Your task to perform on an android device: Search for Mexican restaurants on Maps Image 0: 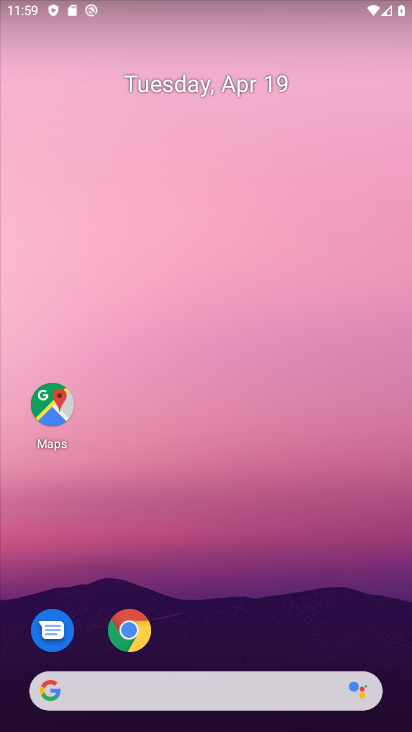
Step 0: drag from (168, 584) to (310, 138)
Your task to perform on an android device: Search for Mexican restaurants on Maps Image 1: 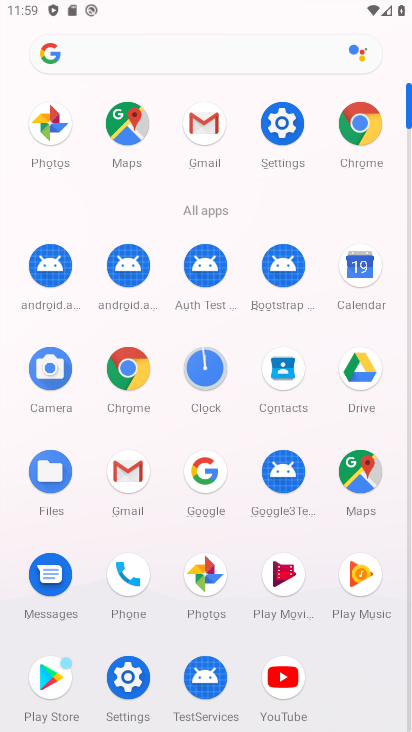
Step 1: click (355, 478)
Your task to perform on an android device: Search for Mexican restaurants on Maps Image 2: 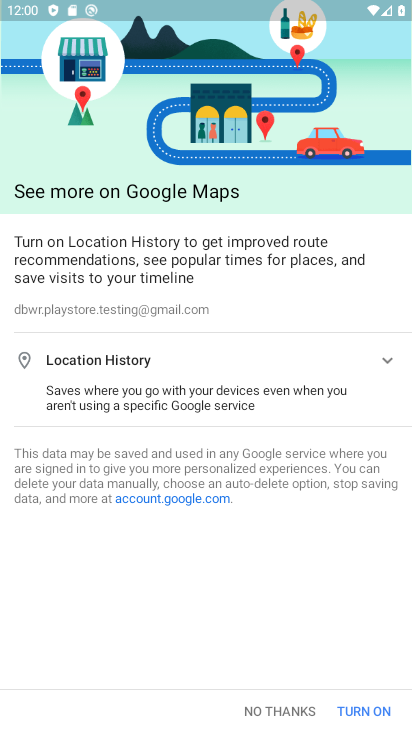
Step 2: click (250, 715)
Your task to perform on an android device: Search for Mexican restaurants on Maps Image 3: 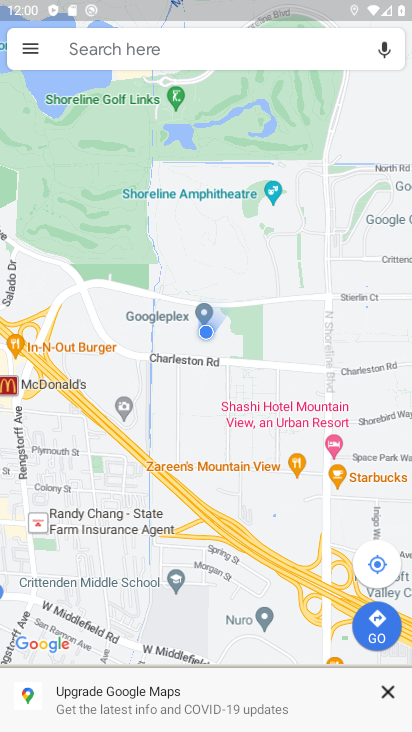
Step 3: click (181, 52)
Your task to perform on an android device: Search for Mexican restaurants on Maps Image 4: 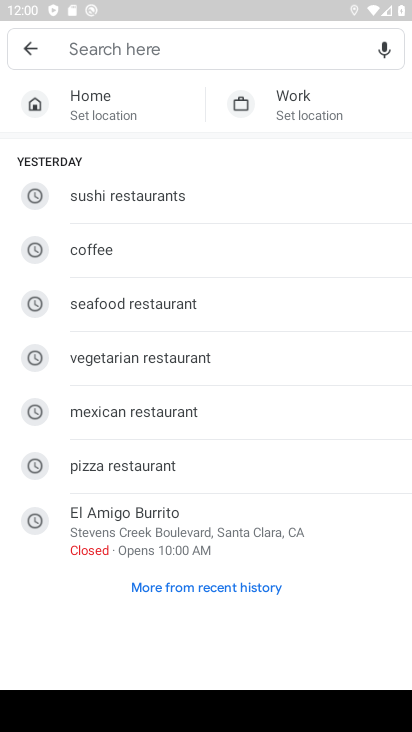
Step 4: click (125, 410)
Your task to perform on an android device: Search for Mexican restaurants on Maps Image 5: 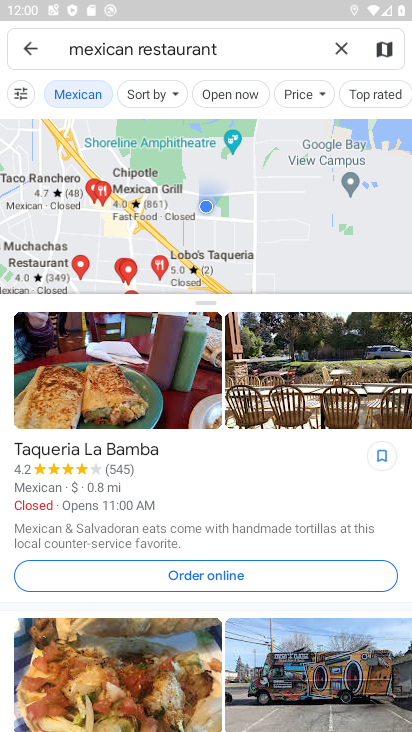
Step 5: task complete